Your task to perform on an android device: Check the news Image 0: 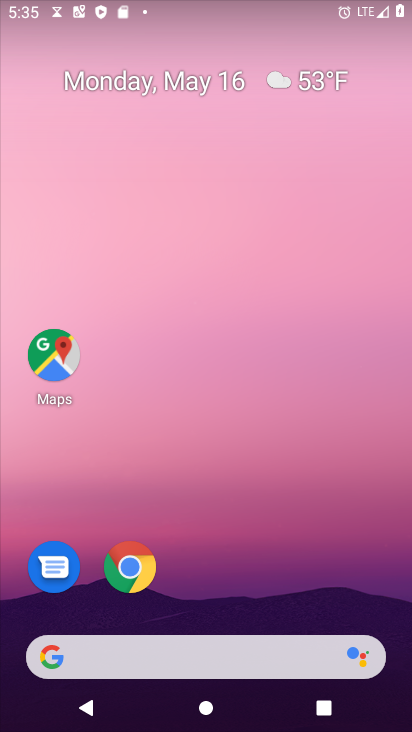
Step 0: drag from (200, 670) to (203, 8)
Your task to perform on an android device: Check the news Image 1: 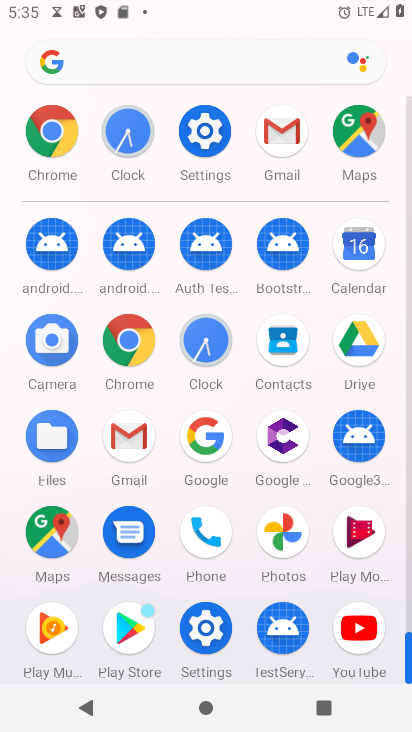
Step 1: click (115, 330)
Your task to perform on an android device: Check the news Image 2: 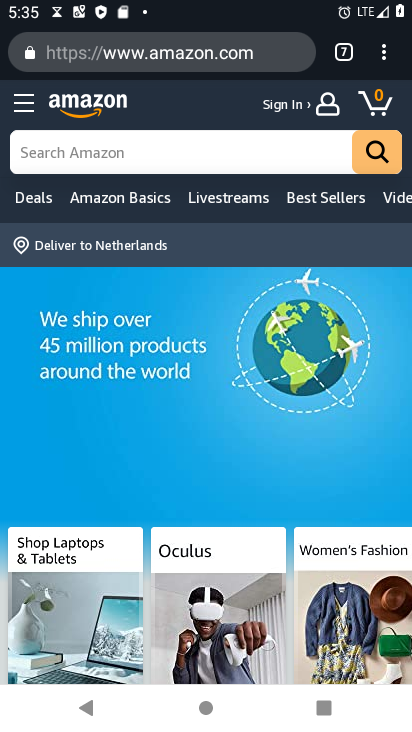
Step 2: click (171, 38)
Your task to perform on an android device: Check the news Image 3: 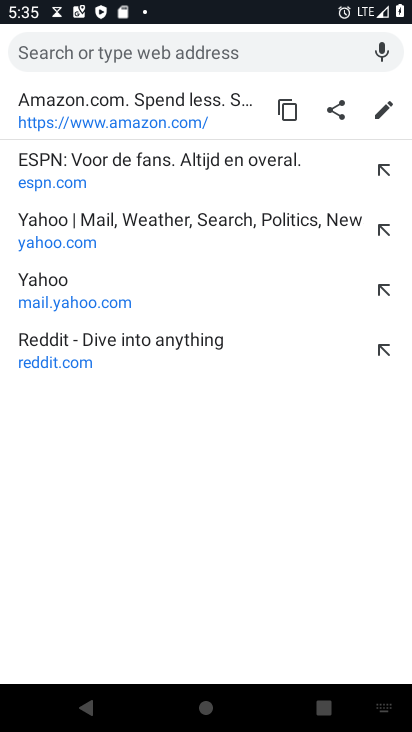
Step 3: type "check the news"
Your task to perform on an android device: Check the news Image 4: 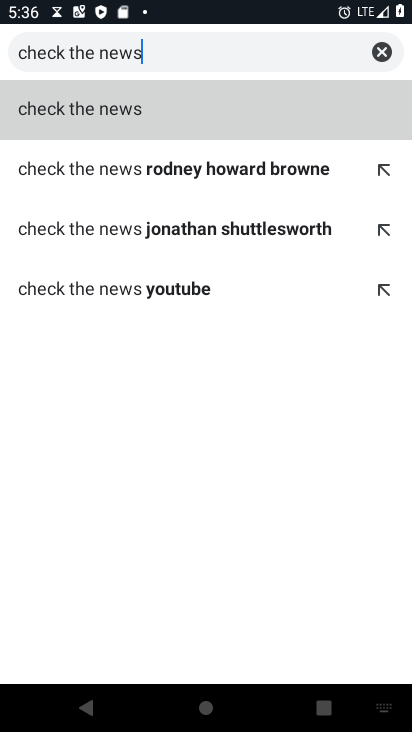
Step 4: click (137, 109)
Your task to perform on an android device: Check the news Image 5: 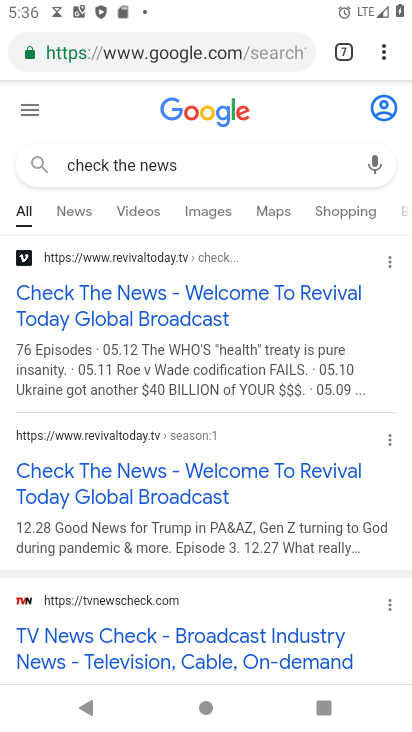
Step 5: task complete